Your task to perform on an android device: allow notifications from all sites in the chrome app Image 0: 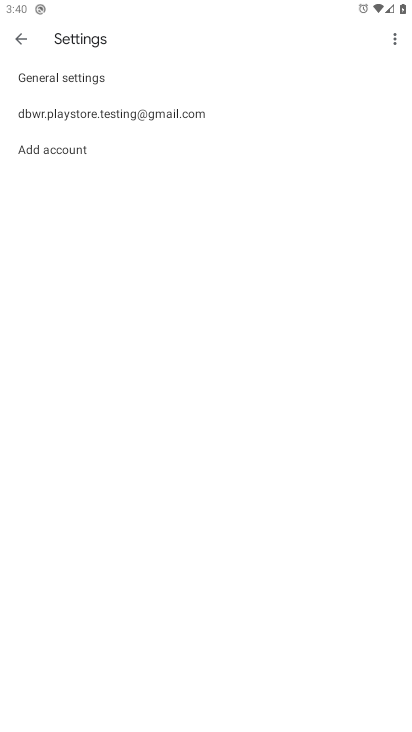
Step 0: click (25, 52)
Your task to perform on an android device: allow notifications from all sites in the chrome app Image 1: 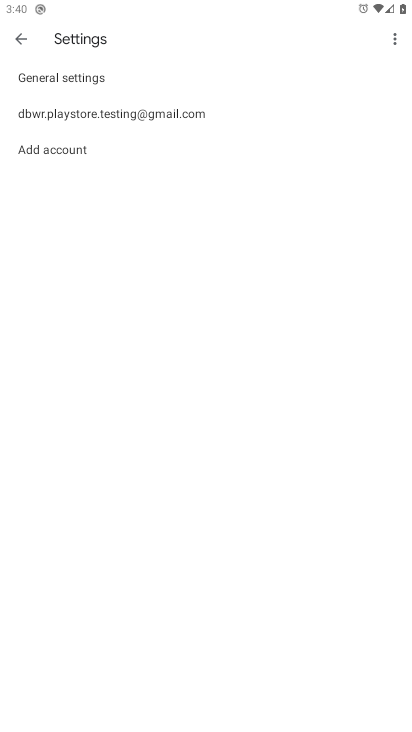
Step 1: click (19, 44)
Your task to perform on an android device: allow notifications from all sites in the chrome app Image 2: 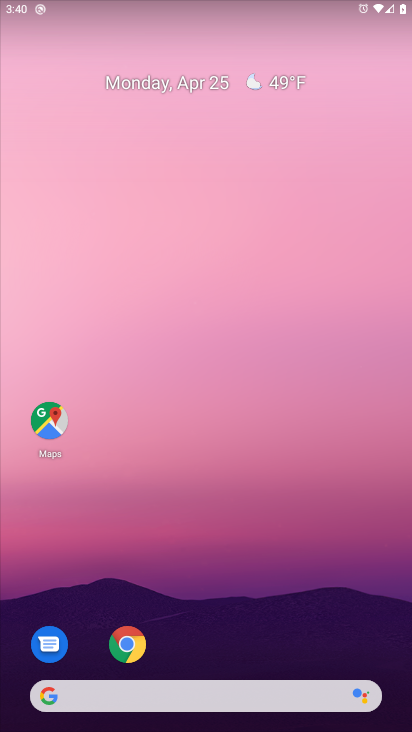
Step 2: click (134, 638)
Your task to perform on an android device: allow notifications from all sites in the chrome app Image 3: 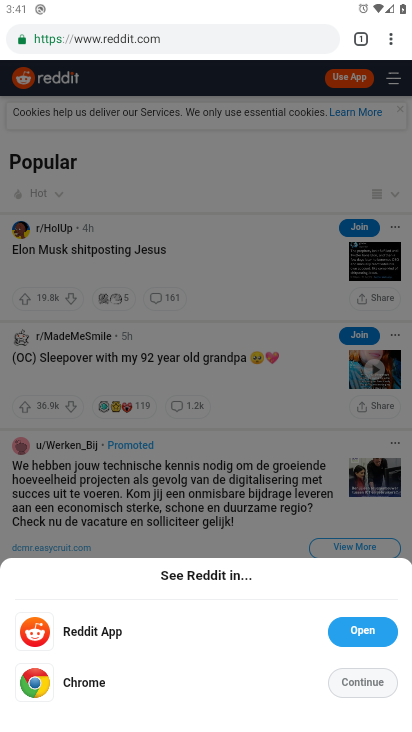
Step 3: click (389, 44)
Your task to perform on an android device: allow notifications from all sites in the chrome app Image 4: 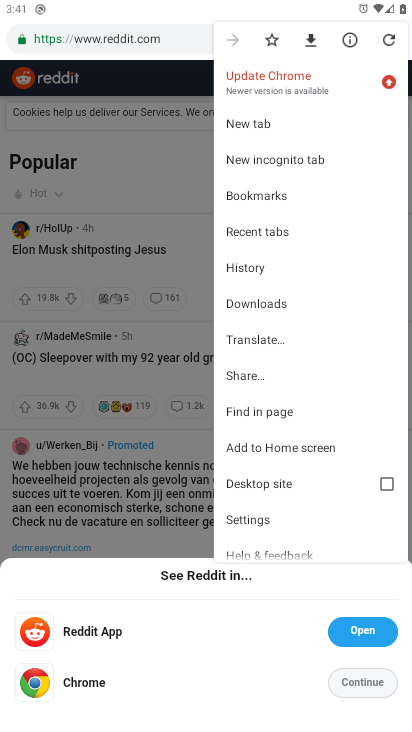
Step 4: click (296, 524)
Your task to perform on an android device: allow notifications from all sites in the chrome app Image 5: 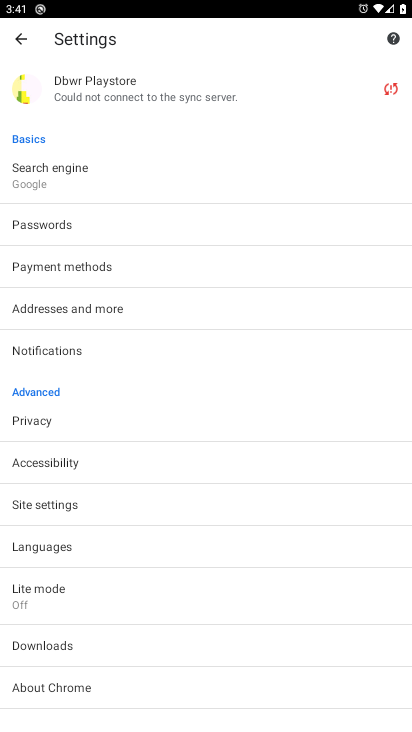
Step 5: drag from (247, 554) to (253, 287)
Your task to perform on an android device: allow notifications from all sites in the chrome app Image 6: 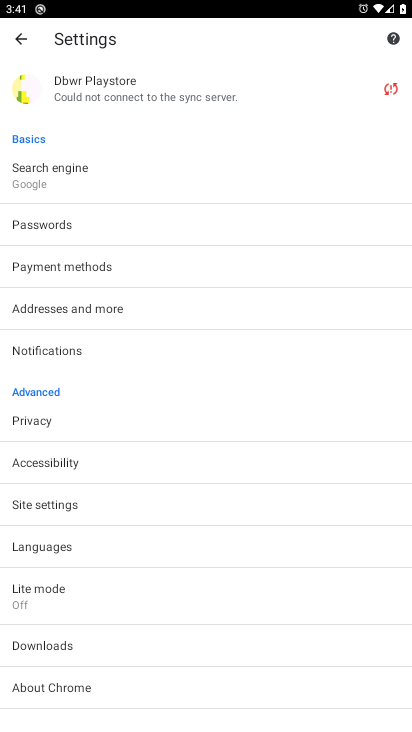
Step 6: click (111, 497)
Your task to perform on an android device: allow notifications from all sites in the chrome app Image 7: 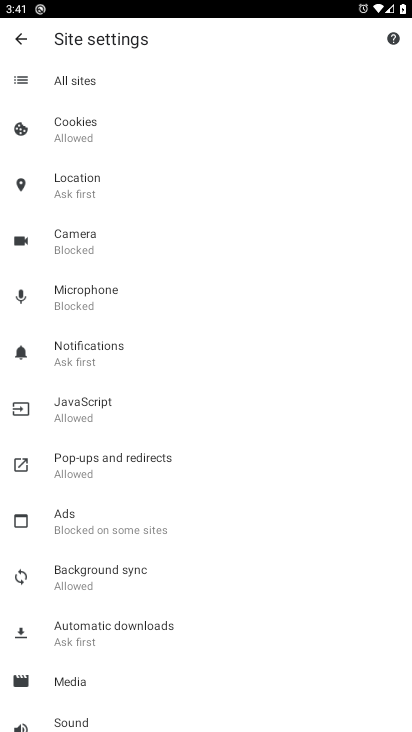
Step 7: task complete